Your task to perform on an android device: What's the weather? Image 0: 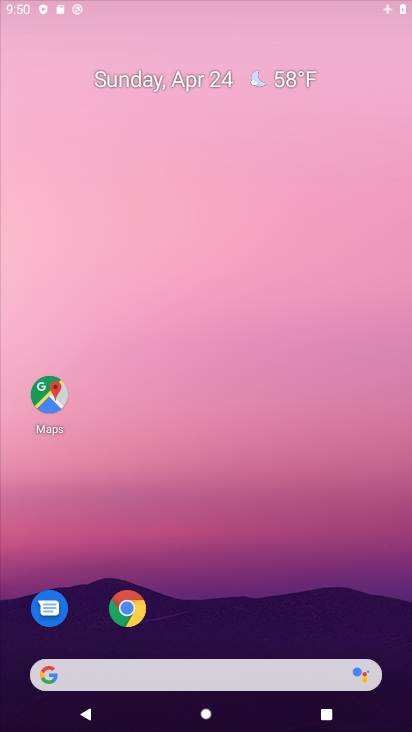
Step 0: drag from (280, 561) to (205, 9)
Your task to perform on an android device: What's the weather? Image 1: 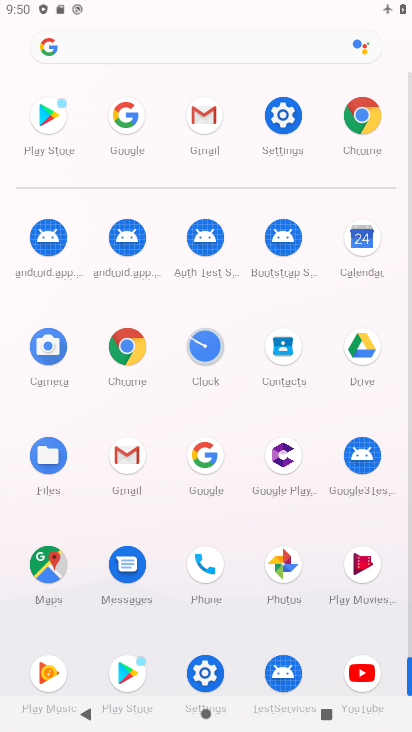
Step 1: click (123, 104)
Your task to perform on an android device: What's the weather? Image 2: 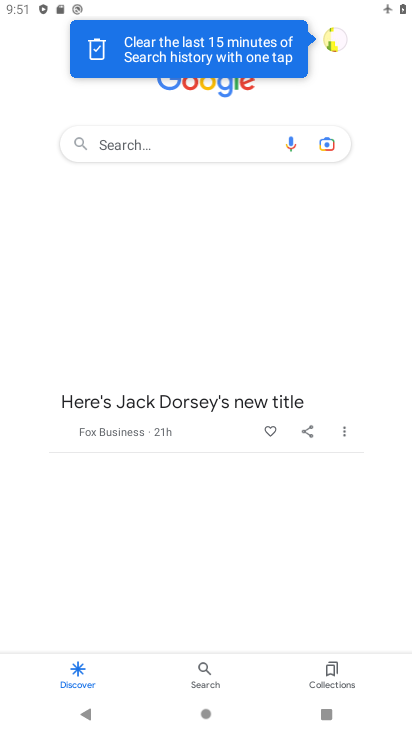
Step 2: click (185, 148)
Your task to perform on an android device: What's the weather? Image 3: 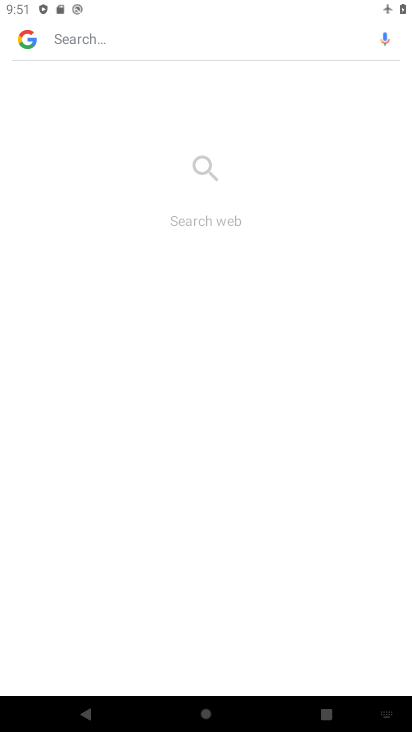
Step 3: press back button
Your task to perform on an android device: What's the weather? Image 4: 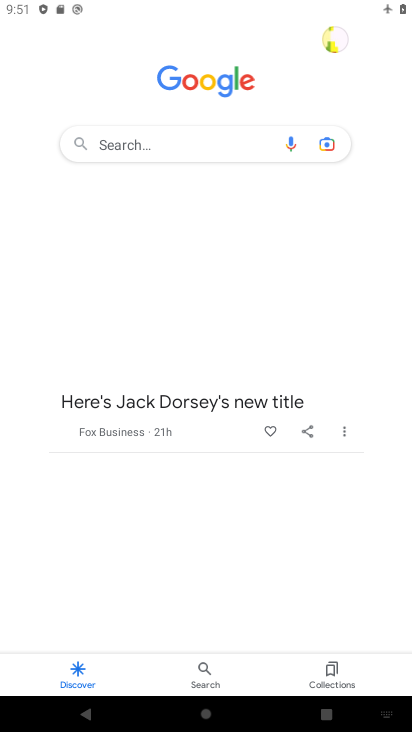
Step 4: click (216, 140)
Your task to perform on an android device: What's the weather? Image 5: 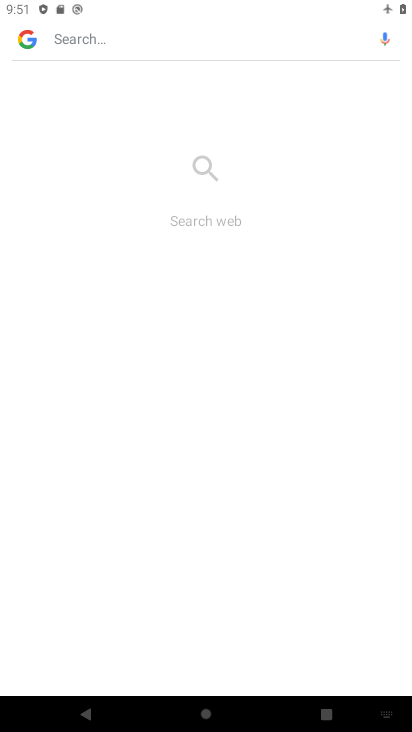
Step 5: task complete